Your task to perform on an android device: Go to Yahoo.com Image 0: 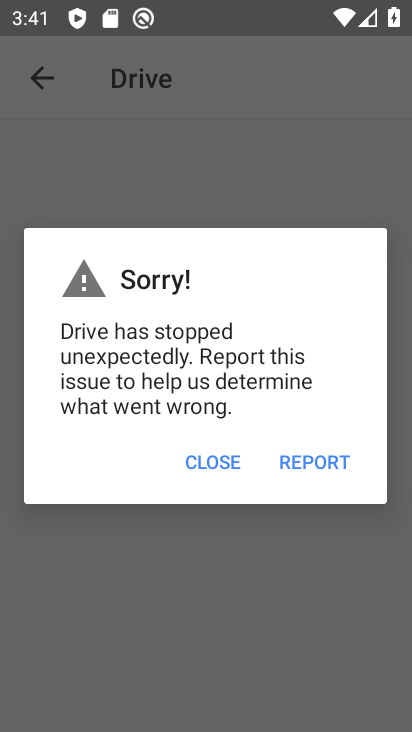
Step 0: click (236, 466)
Your task to perform on an android device: Go to Yahoo.com Image 1: 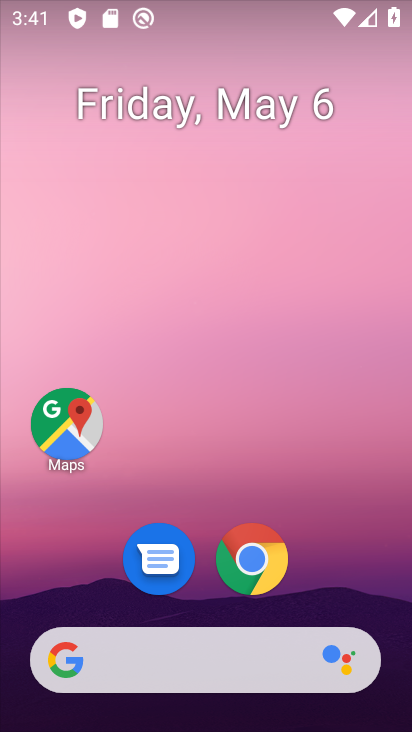
Step 1: drag from (225, 627) to (200, 269)
Your task to perform on an android device: Go to Yahoo.com Image 2: 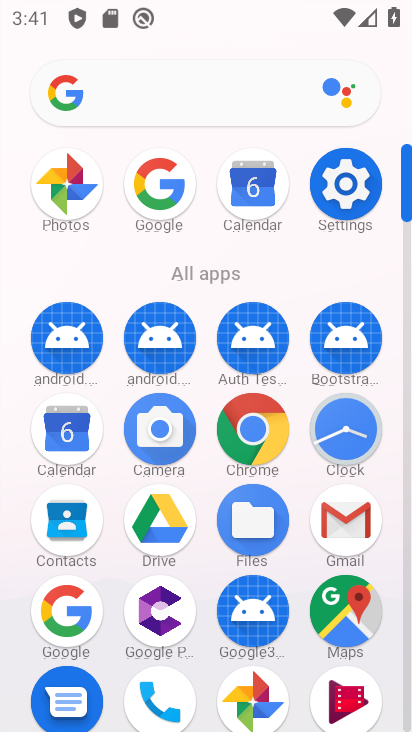
Step 2: click (250, 423)
Your task to perform on an android device: Go to Yahoo.com Image 3: 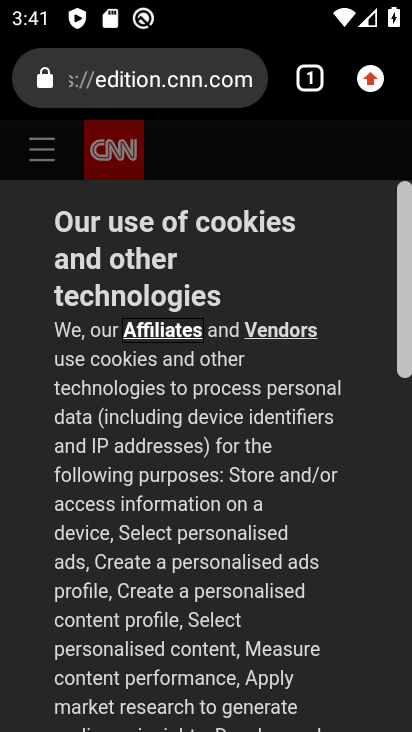
Step 3: drag from (237, 692) to (229, 283)
Your task to perform on an android device: Go to Yahoo.com Image 4: 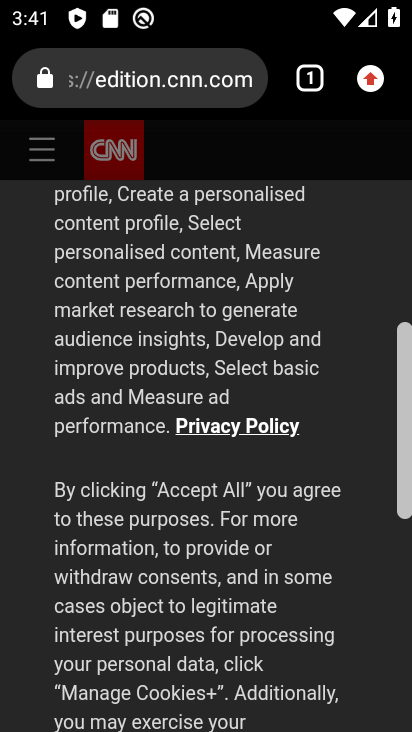
Step 4: click (306, 79)
Your task to perform on an android device: Go to Yahoo.com Image 5: 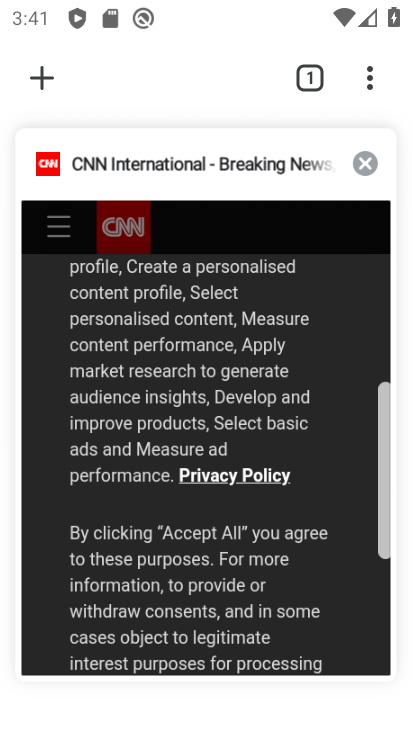
Step 5: click (366, 162)
Your task to perform on an android device: Go to Yahoo.com Image 6: 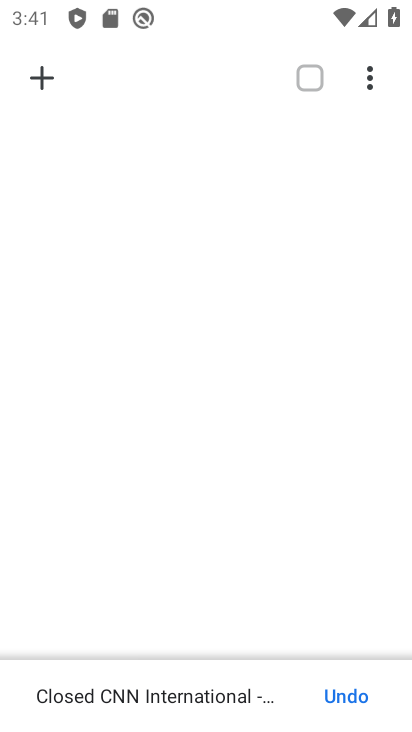
Step 6: click (37, 82)
Your task to perform on an android device: Go to Yahoo.com Image 7: 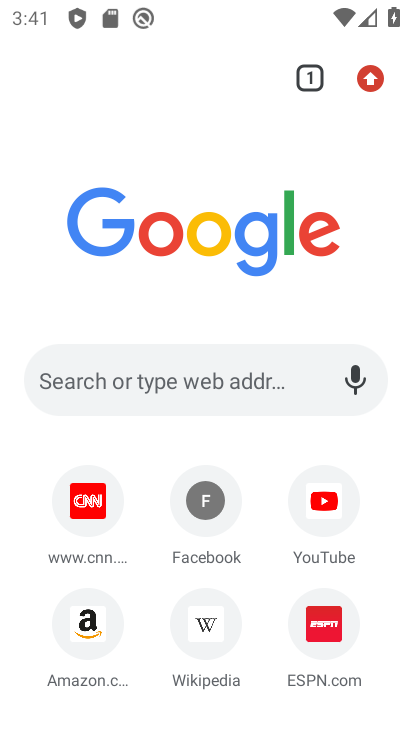
Step 7: drag from (259, 682) to (257, 408)
Your task to perform on an android device: Go to Yahoo.com Image 8: 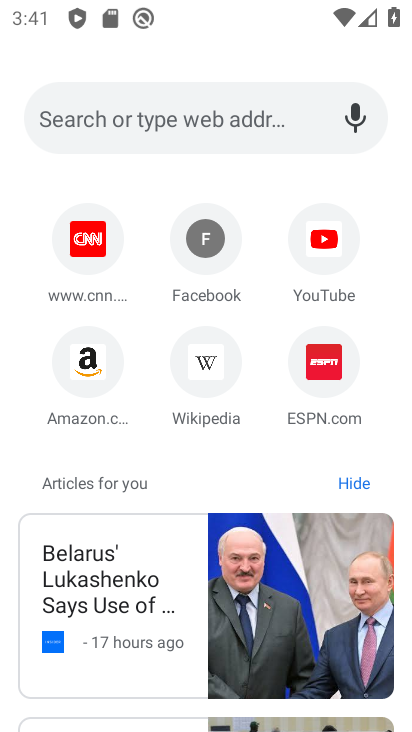
Step 8: click (155, 115)
Your task to perform on an android device: Go to Yahoo.com Image 9: 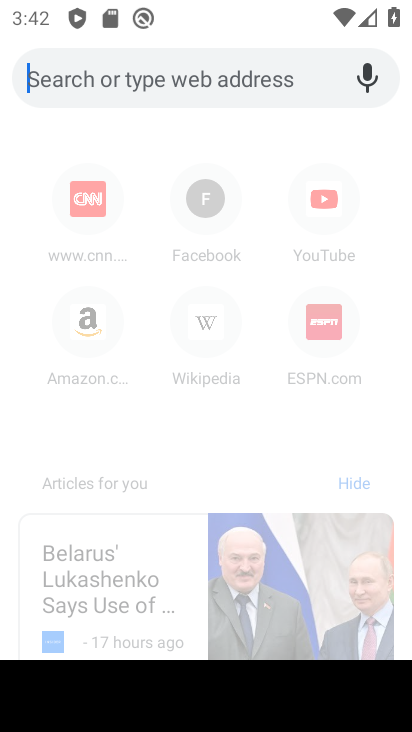
Step 9: type "yahoo.com"
Your task to perform on an android device: Go to Yahoo.com Image 10: 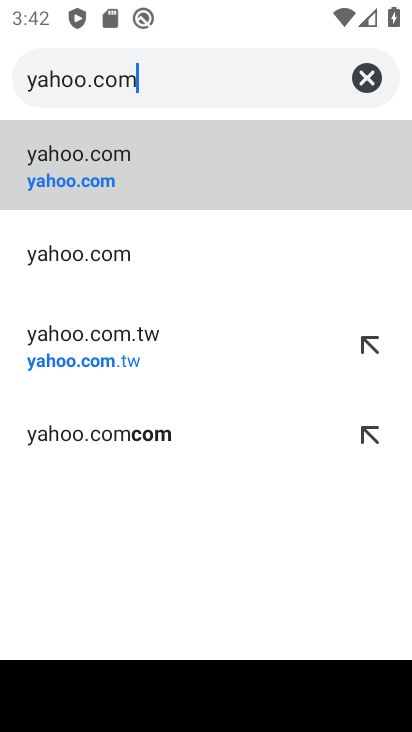
Step 10: click (117, 155)
Your task to perform on an android device: Go to Yahoo.com Image 11: 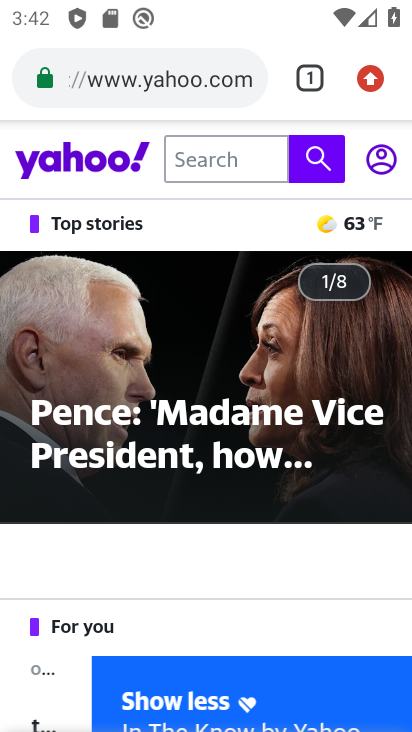
Step 11: task complete